Your task to perform on an android device: Open location settings Image 0: 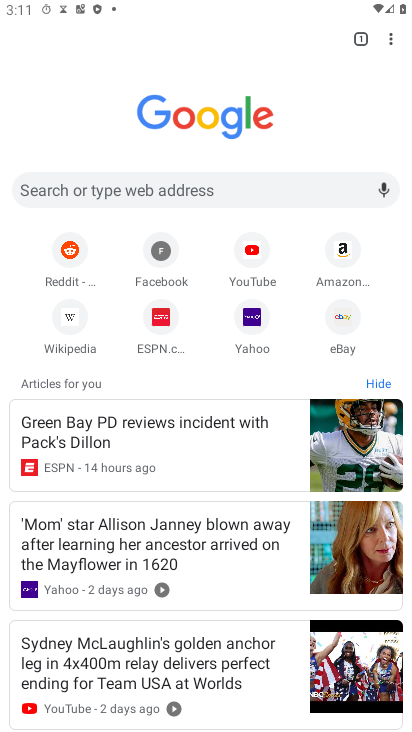
Step 0: click (388, 42)
Your task to perform on an android device: Open location settings Image 1: 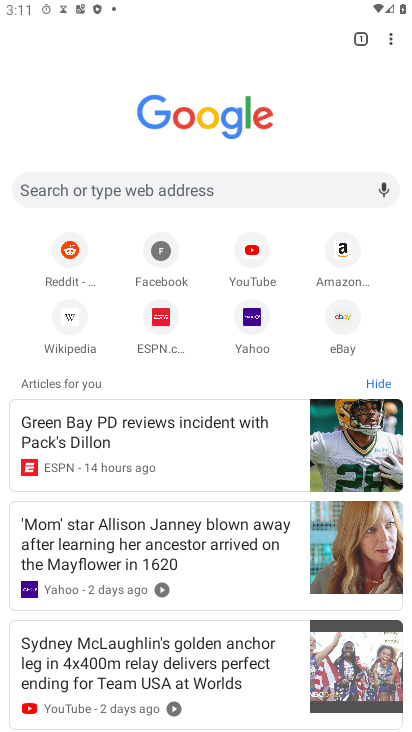
Step 1: press home button
Your task to perform on an android device: Open location settings Image 2: 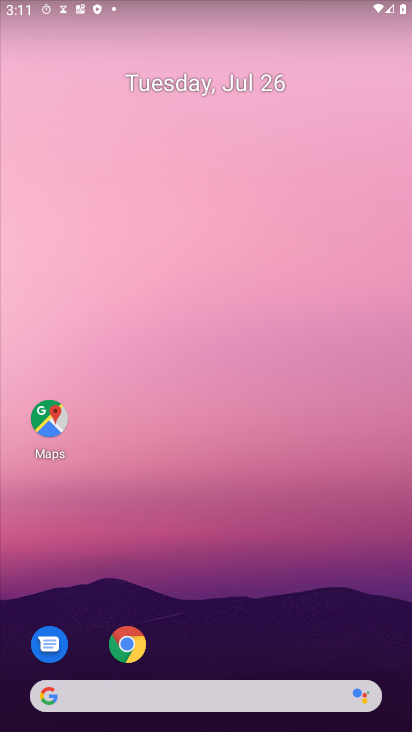
Step 2: drag from (267, 620) to (278, 196)
Your task to perform on an android device: Open location settings Image 3: 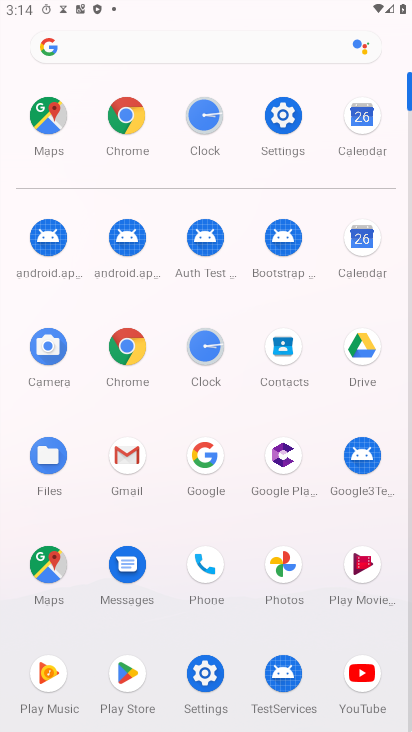
Step 3: click (273, 108)
Your task to perform on an android device: Open location settings Image 4: 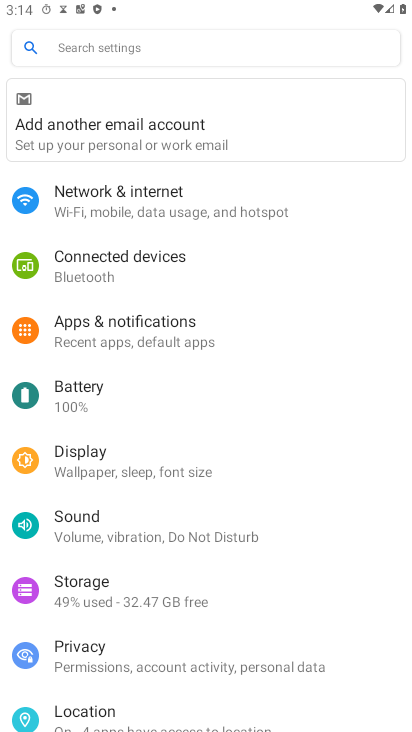
Step 4: click (123, 701)
Your task to perform on an android device: Open location settings Image 5: 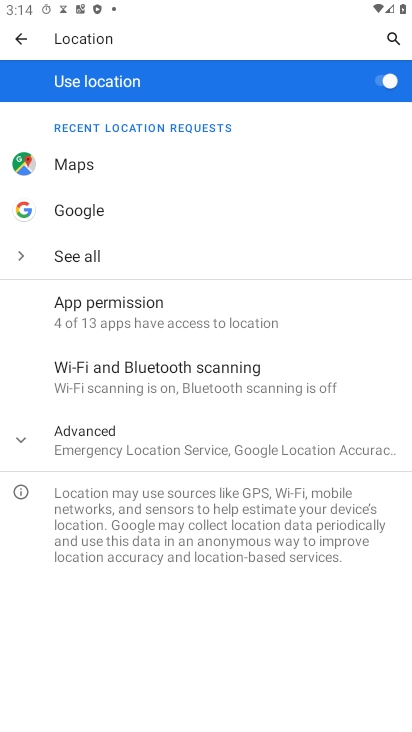
Step 5: task complete